Your task to perform on an android device: Open the phone app and click the voicemail tab. Image 0: 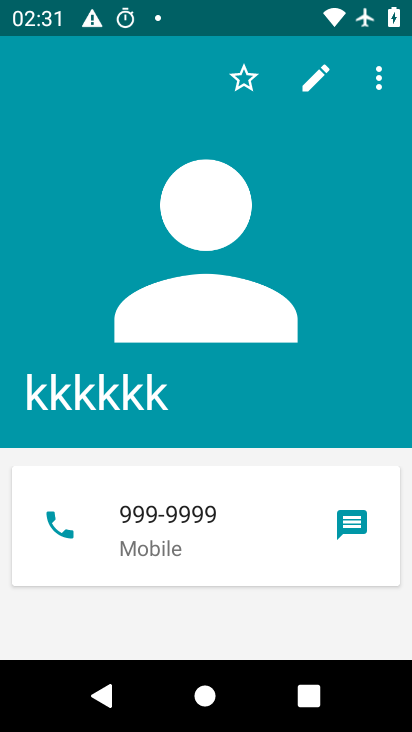
Step 0: press home button
Your task to perform on an android device: Open the phone app and click the voicemail tab. Image 1: 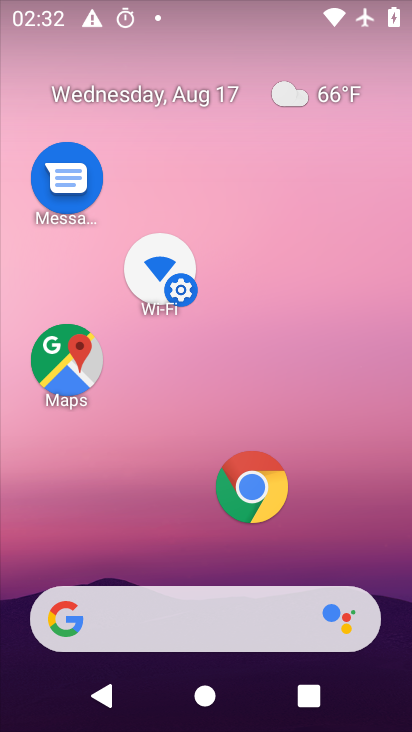
Step 1: drag from (199, 344) to (212, 19)
Your task to perform on an android device: Open the phone app and click the voicemail tab. Image 2: 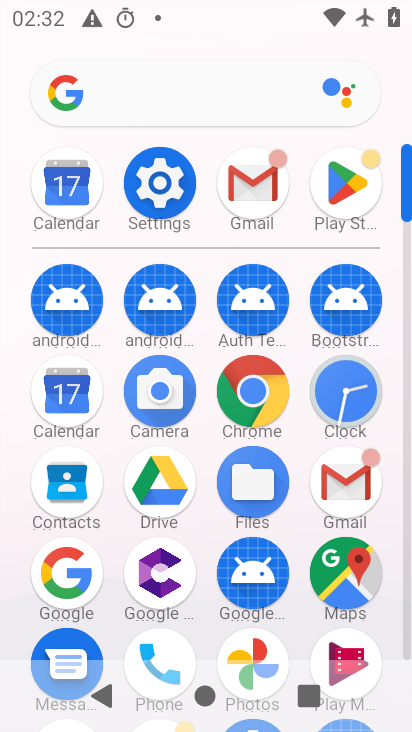
Step 2: drag from (208, 561) to (217, 76)
Your task to perform on an android device: Open the phone app and click the voicemail tab. Image 3: 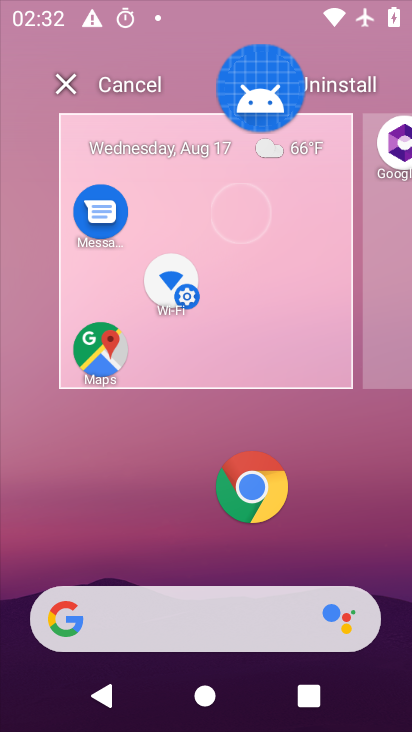
Step 3: click (191, 409)
Your task to perform on an android device: Open the phone app and click the voicemail tab. Image 4: 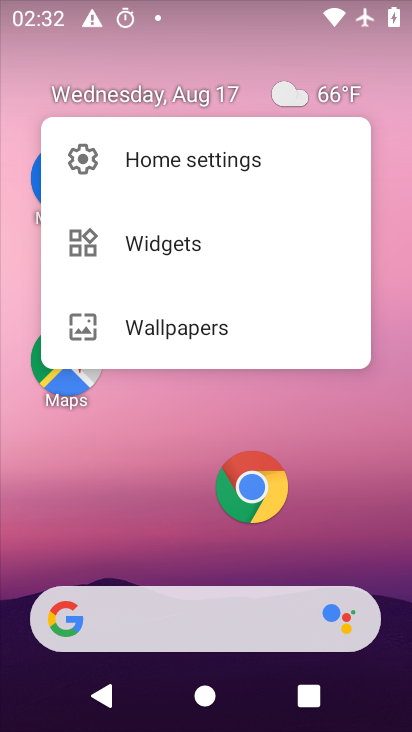
Step 4: click (130, 508)
Your task to perform on an android device: Open the phone app and click the voicemail tab. Image 5: 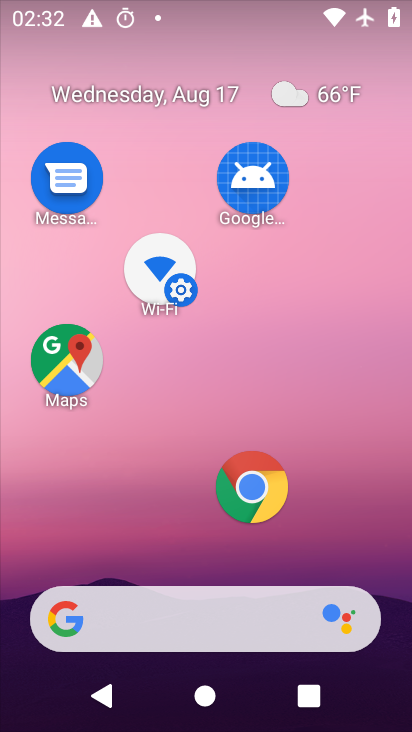
Step 5: drag from (343, 481) to (292, 6)
Your task to perform on an android device: Open the phone app and click the voicemail tab. Image 6: 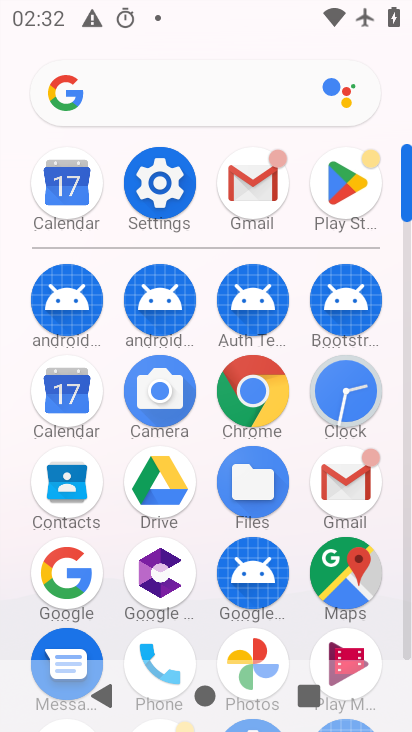
Step 6: drag from (206, 544) to (190, 22)
Your task to perform on an android device: Open the phone app and click the voicemail tab. Image 7: 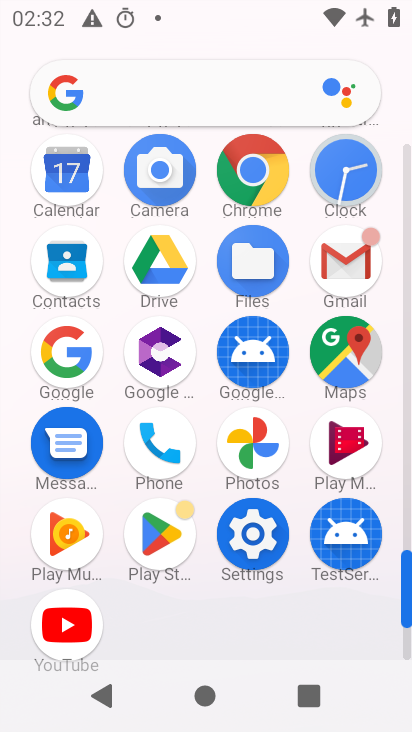
Step 7: click (155, 444)
Your task to perform on an android device: Open the phone app and click the voicemail tab. Image 8: 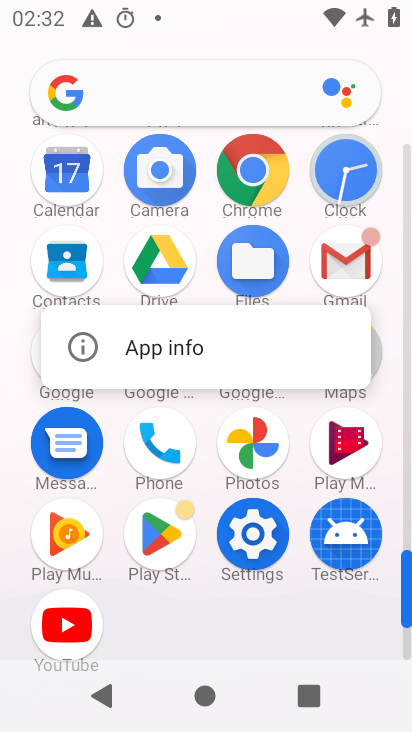
Step 8: click (155, 444)
Your task to perform on an android device: Open the phone app and click the voicemail tab. Image 9: 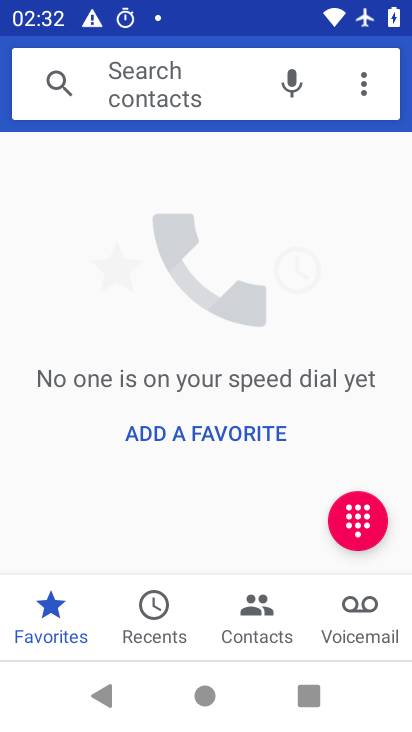
Step 9: click (368, 619)
Your task to perform on an android device: Open the phone app and click the voicemail tab. Image 10: 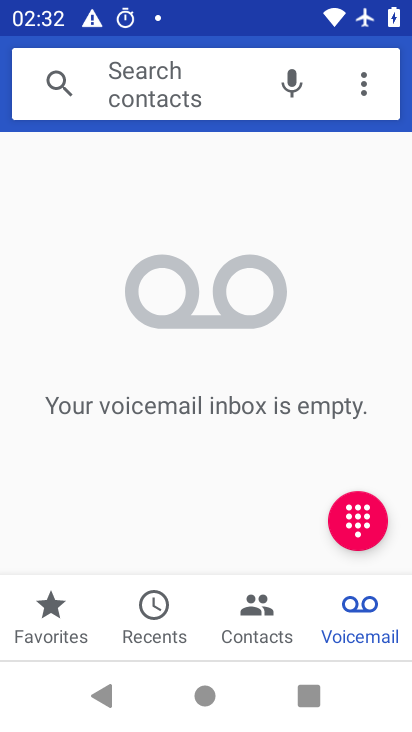
Step 10: task complete